Your task to perform on an android device: Open Google Image 0: 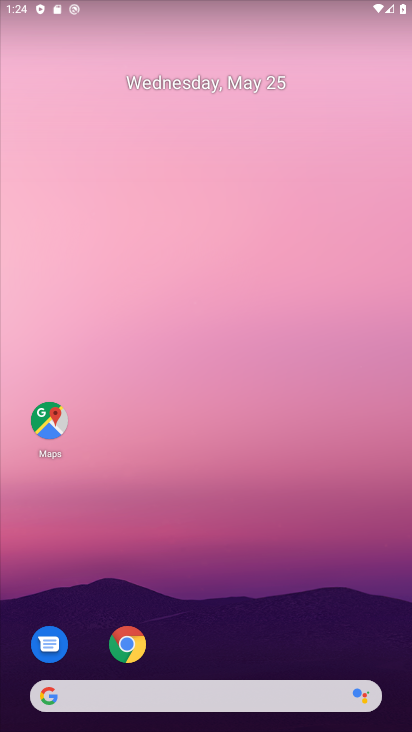
Step 0: drag from (200, 636) to (227, 18)
Your task to perform on an android device: Open Google Image 1: 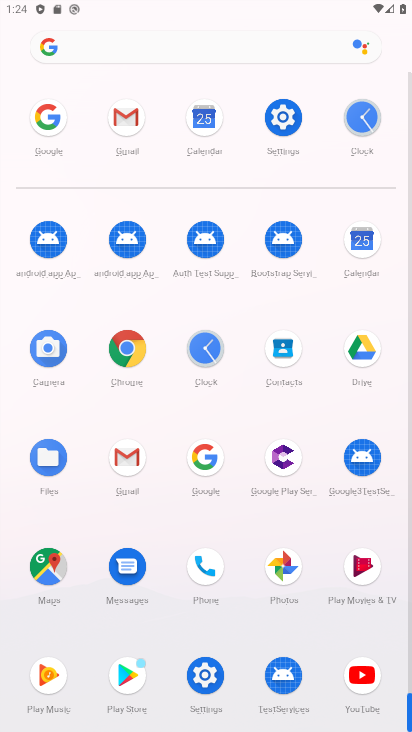
Step 1: click (199, 461)
Your task to perform on an android device: Open Google Image 2: 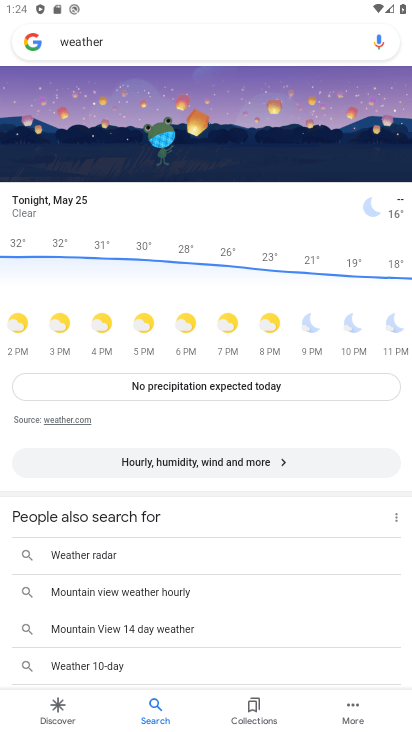
Step 2: task complete